Your task to perform on an android device: toggle location history Image 0: 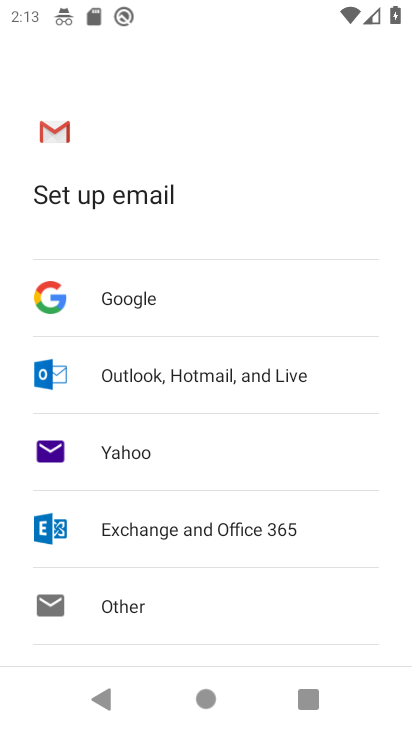
Step 0: press home button
Your task to perform on an android device: toggle location history Image 1: 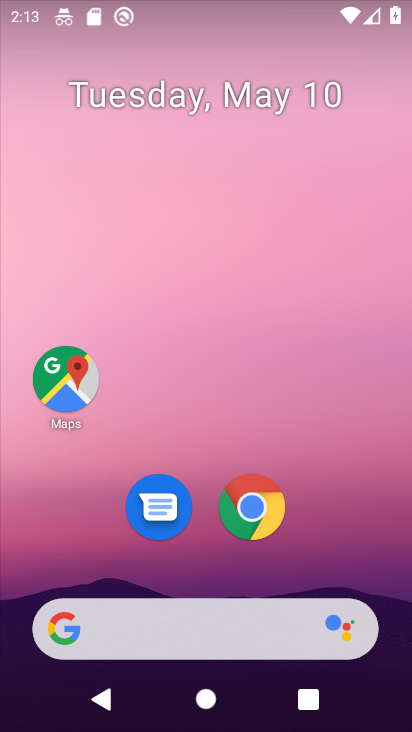
Step 1: drag from (170, 593) to (191, 195)
Your task to perform on an android device: toggle location history Image 2: 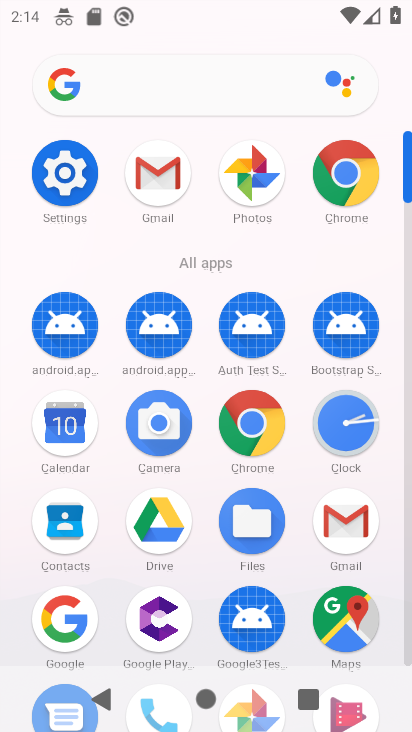
Step 2: click (69, 176)
Your task to perform on an android device: toggle location history Image 3: 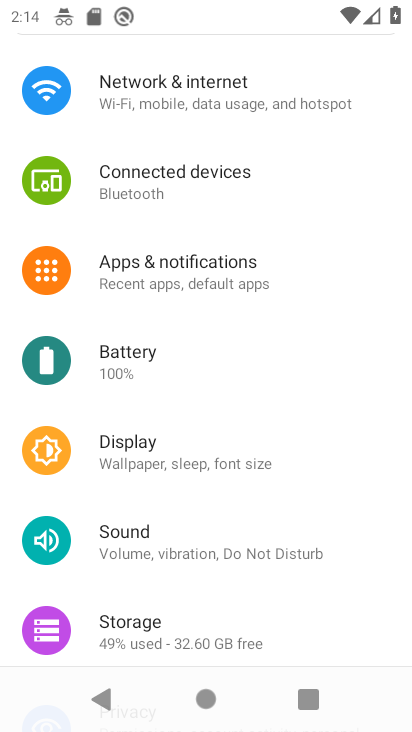
Step 3: drag from (223, 578) to (251, 272)
Your task to perform on an android device: toggle location history Image 4: 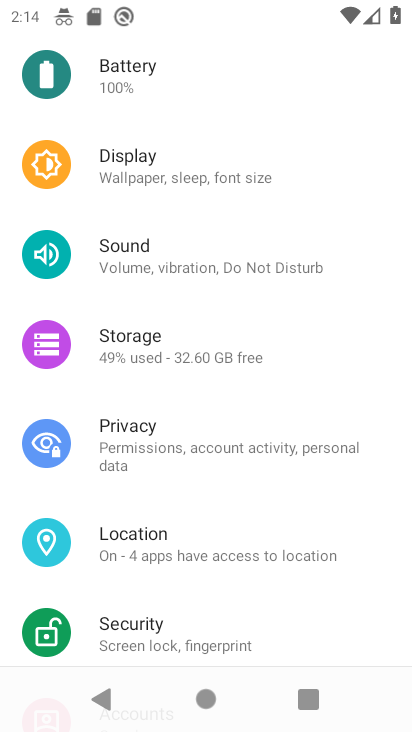
Step 4: click (161, 531)
Your task to perform on an android device: toggle location history Image 5: 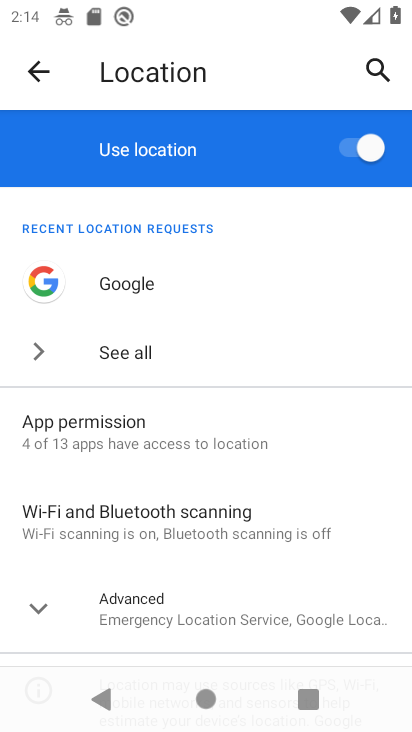
Step 5: click (48, 598)
Your task to perform on an android device: toggle location history Image 6: 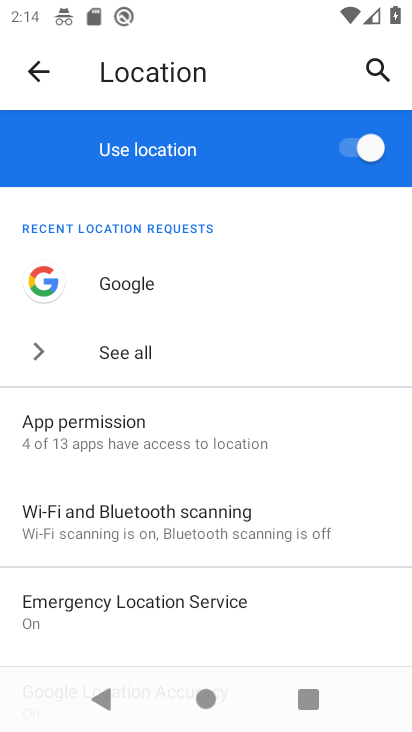
Step 6: drag from (150, 491) to (145, 215)
Your task to perform on an android device: toggle location history Image 7: 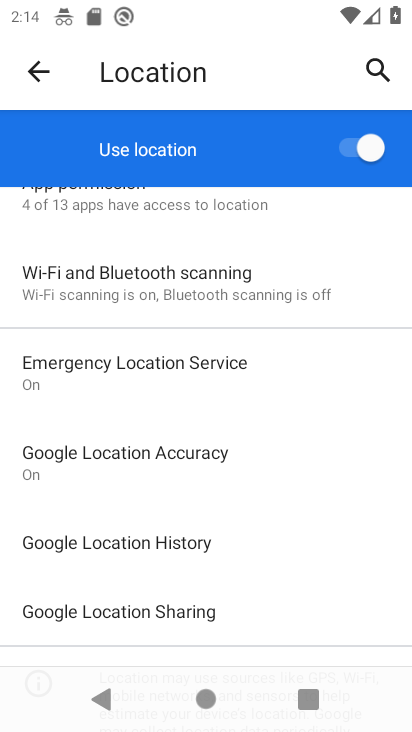
Step 7: click (133, 546)
Your task to perform on an android device: toggle location history Image 8: 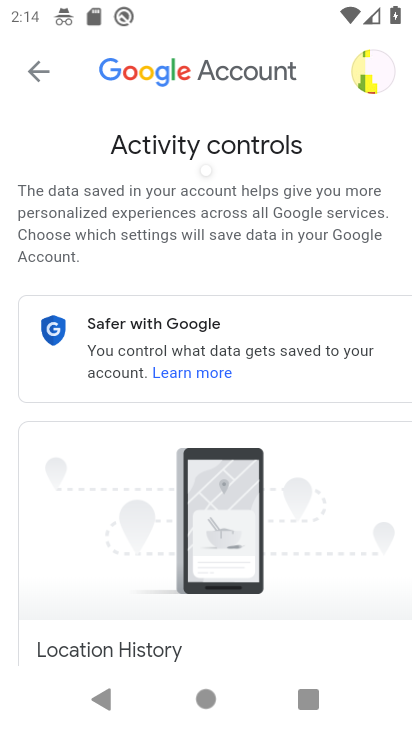
Step 8: drag from (149, 526) to (171, 203)
Your task to perform on an android device: toggle location history Image 9: 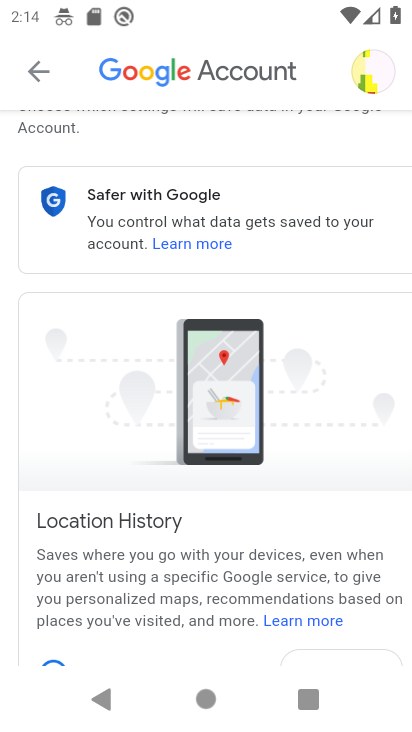
Step 9: drag from (191, 550) to (197, 293)
Your task to perform on an android device: toggle location history Image 10: 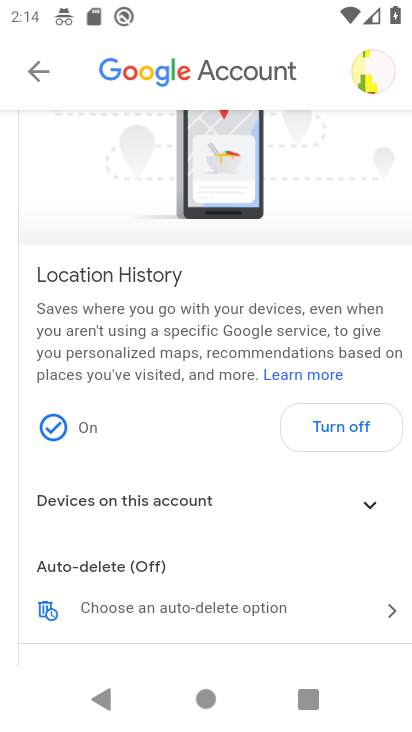
Step 10: click (356, 432)
Your task to perform on an android device: toggle location history Image 11: 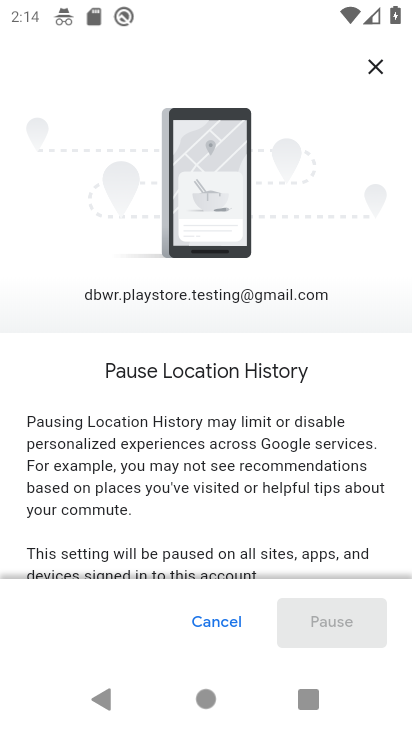
Step 11: task complete